Your task to perform on an android device: Go to display settings Image 0: 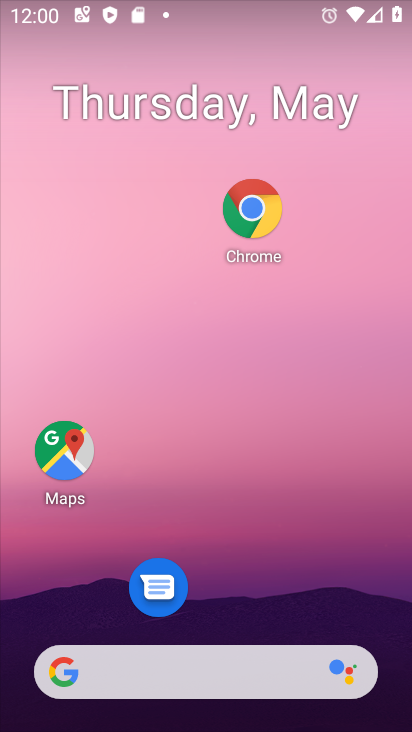
Step 0: drag from (235, 615) to (1, 32)
Your task to perform on an android device: Go to display settings Image 1: 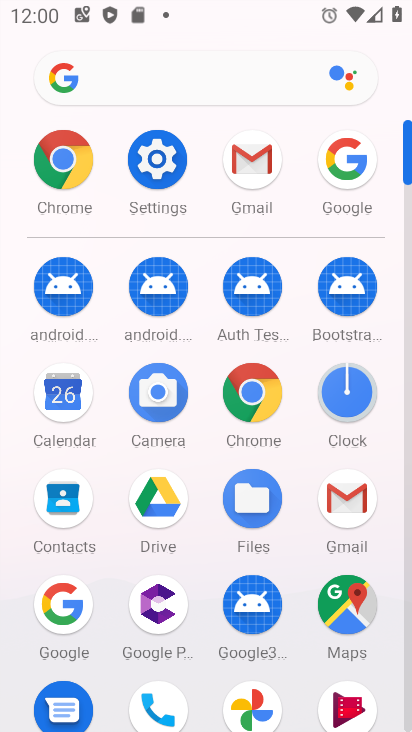
Step 1: click (342, 28)
Your task to perform on an android device: Go to display settings Image 2: 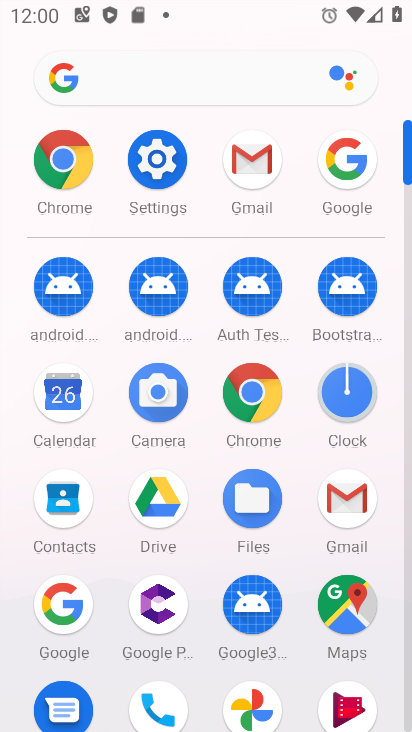
Step 2: click (159, 178)
Your task to perform on an android device: Go to display settings Image 3: 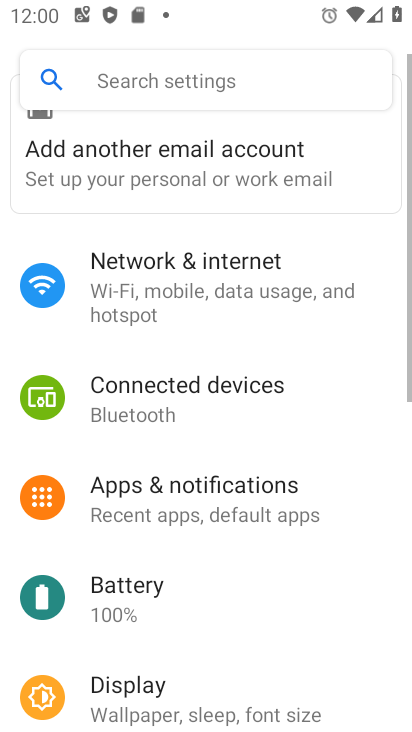
Step 3: click (170, 158)
Your task to perform on an android device: Go to display settings Image 4: 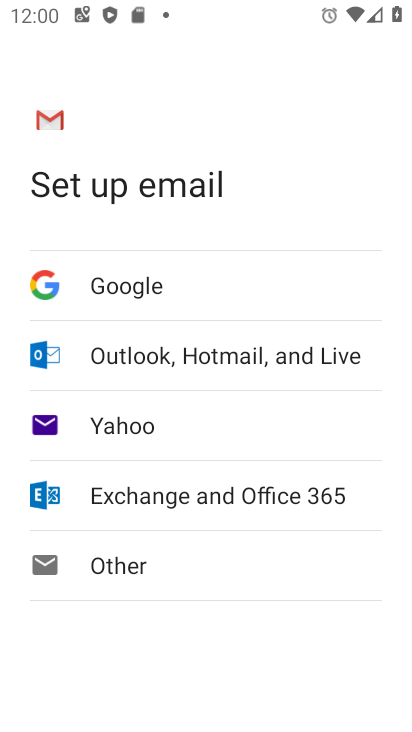
Step 4: press back button
Your task to perform on an android device: Go to display settings Image 5: 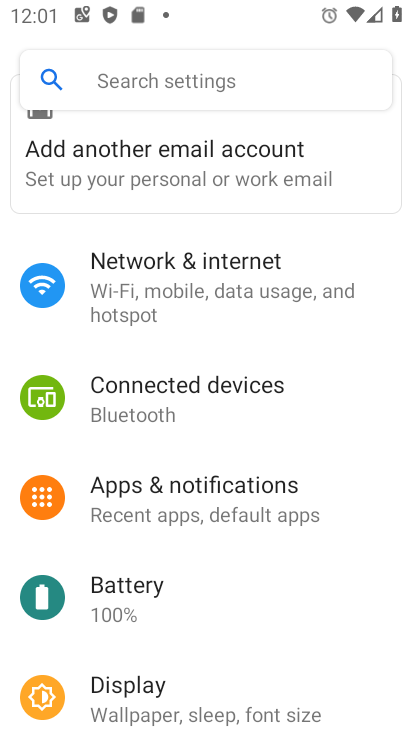
Step 5: click (141, 700)
Your task to perform on an android device: Go to display settings Image 6: 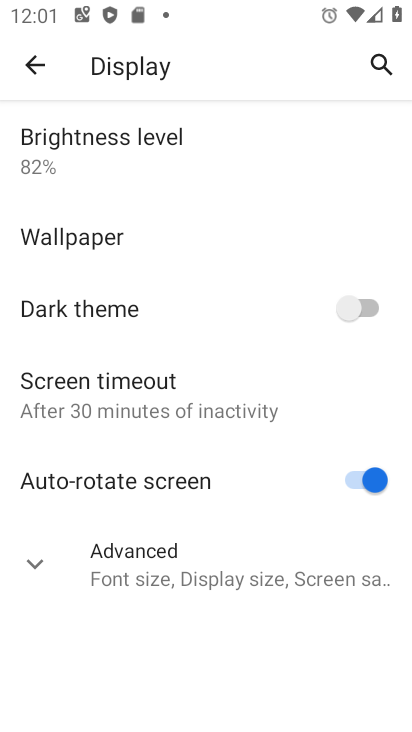
Step 6: task complete